Your task to perform on an android device: install app "Google Maps" Image 0: 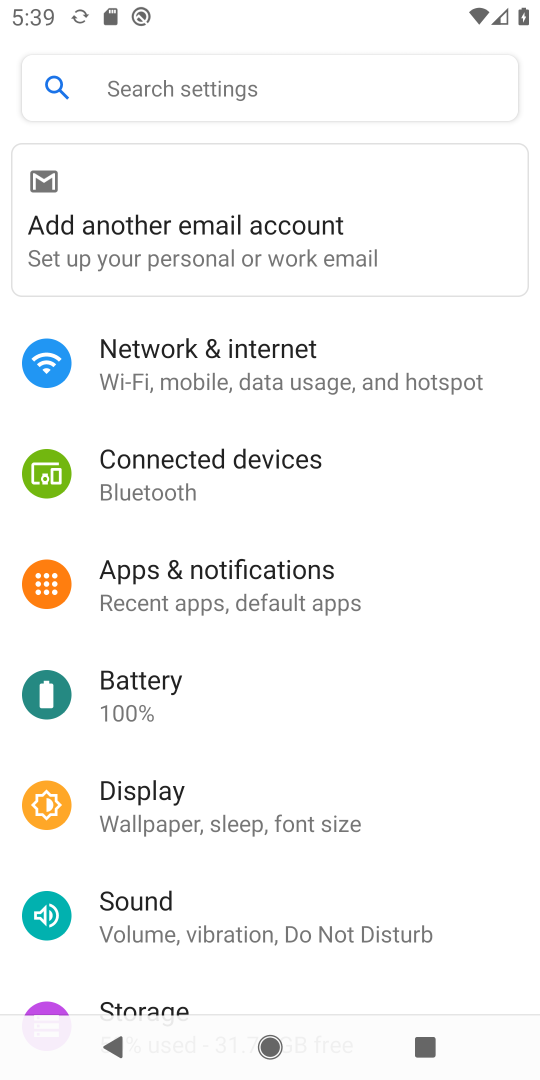
Step 0: press home button
Your task to perform on an android device: install app "Google Maps" Image 1: 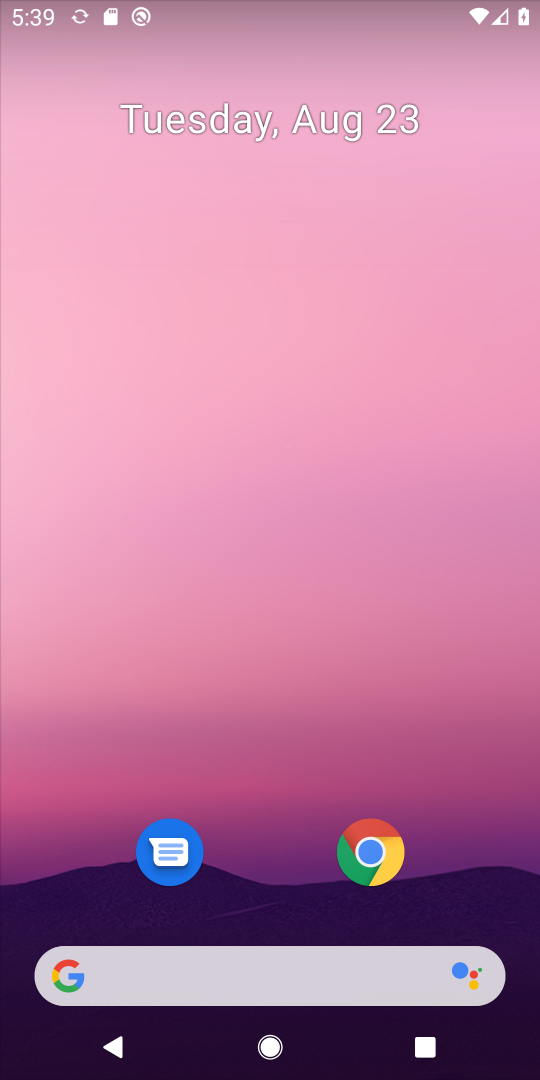
Step 1: drag from (246, 977) to (348, 62)
Your task to perform on an android device: install app "Google Maps" Image 2: 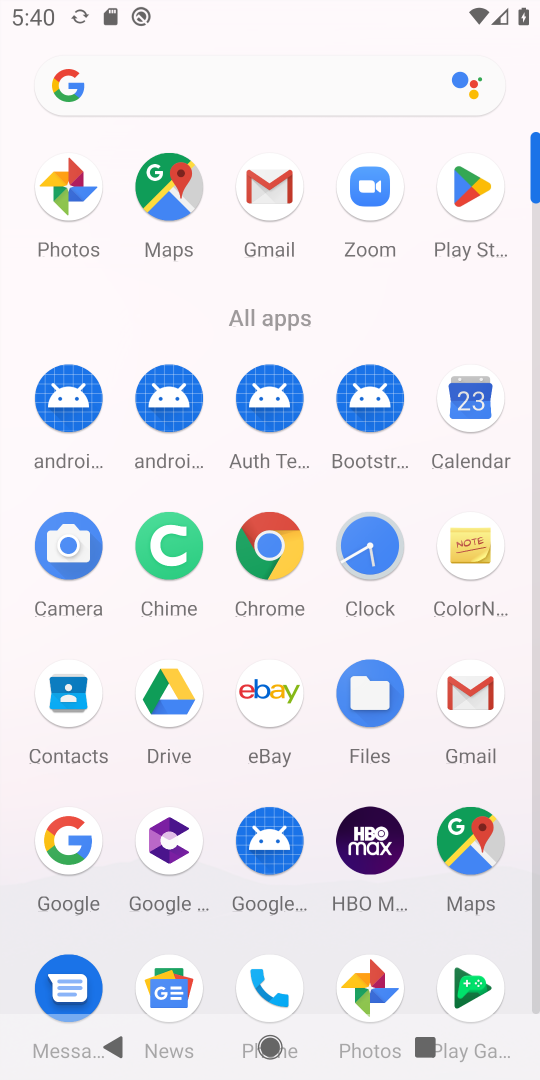
Step 2: click (473, 195)
Your task to perform on an android device: install app "Google Maps" Image 3: 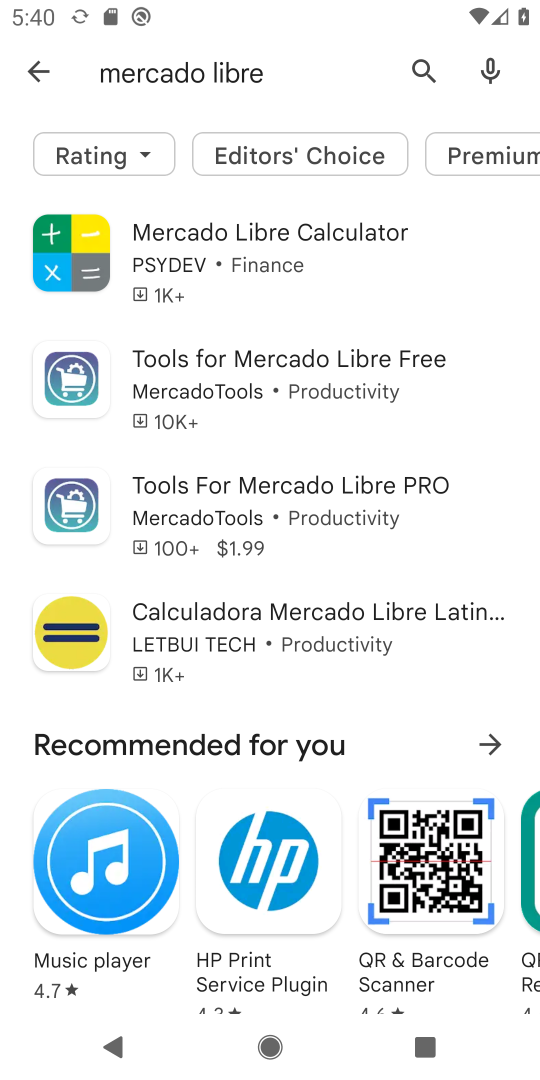
Step 3: press back button
Your task to perform on an android device: install app "Google Maps" Image 4: 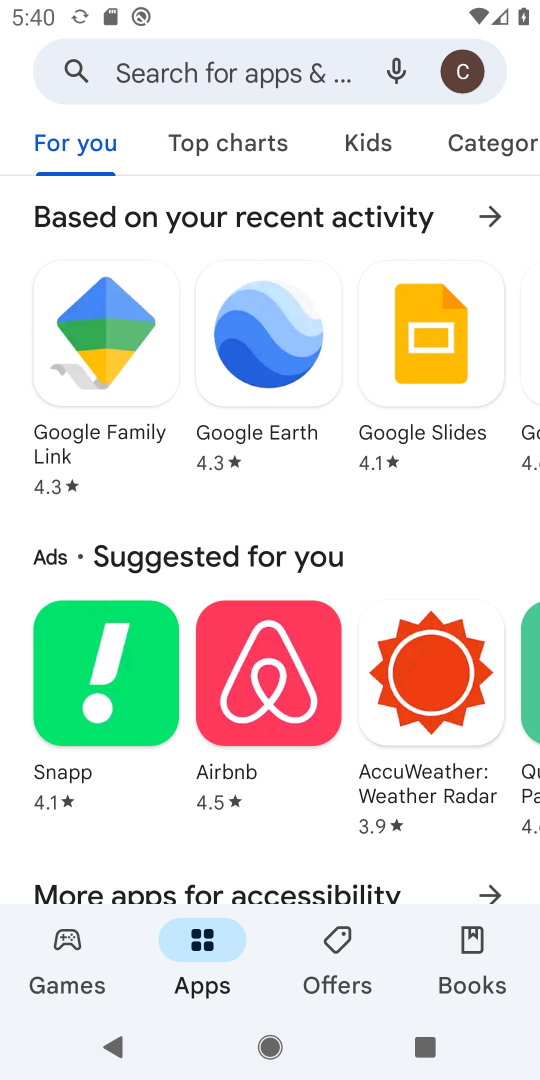
Step 4: click (287, 70)
Your task to perform on an android device: install app "Google Maps" Image 5: 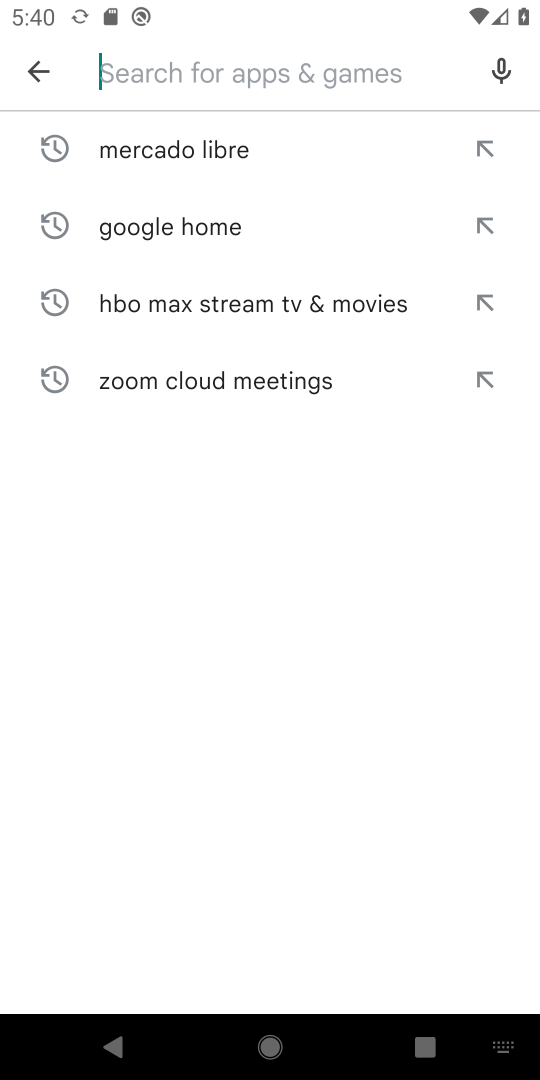
Step 5: type "Google Maps"
Your task to perform on an android device: install app "Google Maps" Image 6: 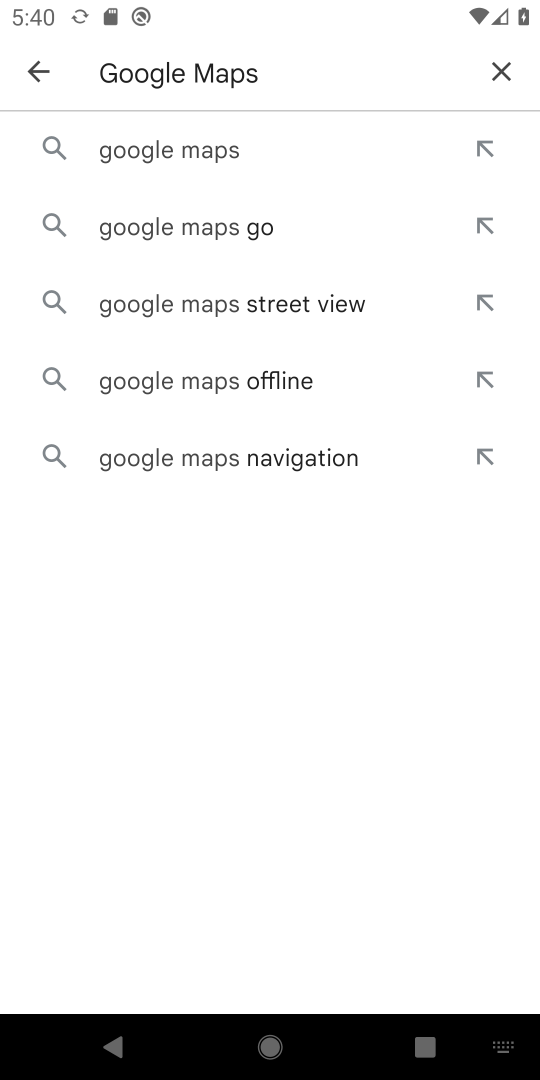
Step 6: click (222, 150)
Your task to perform on an android device: install app "Google Maps" Image 7: 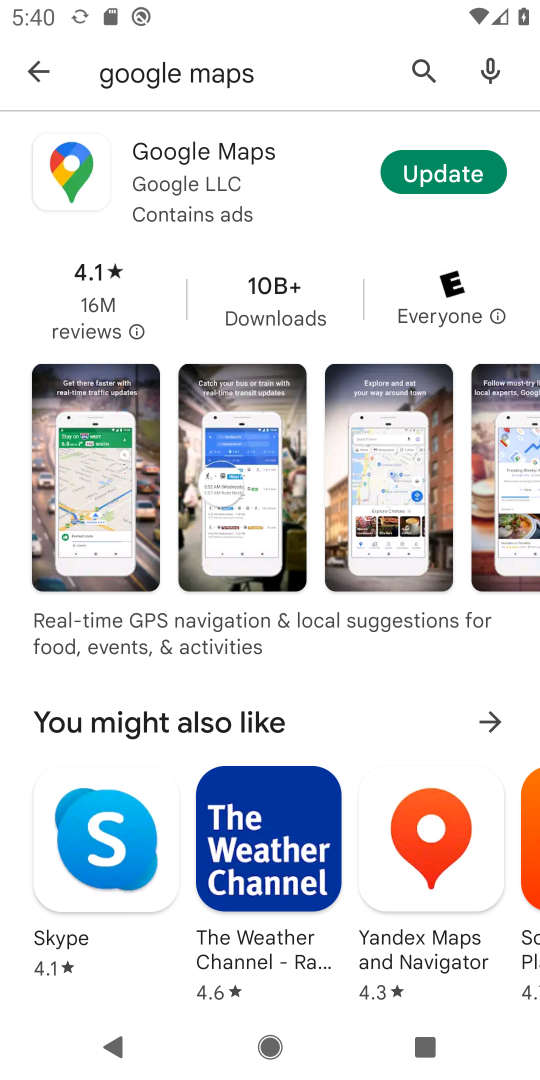
Step 7: click (437, 180)
Your task to perform on an android device: install app "Google Maps" Image 8: 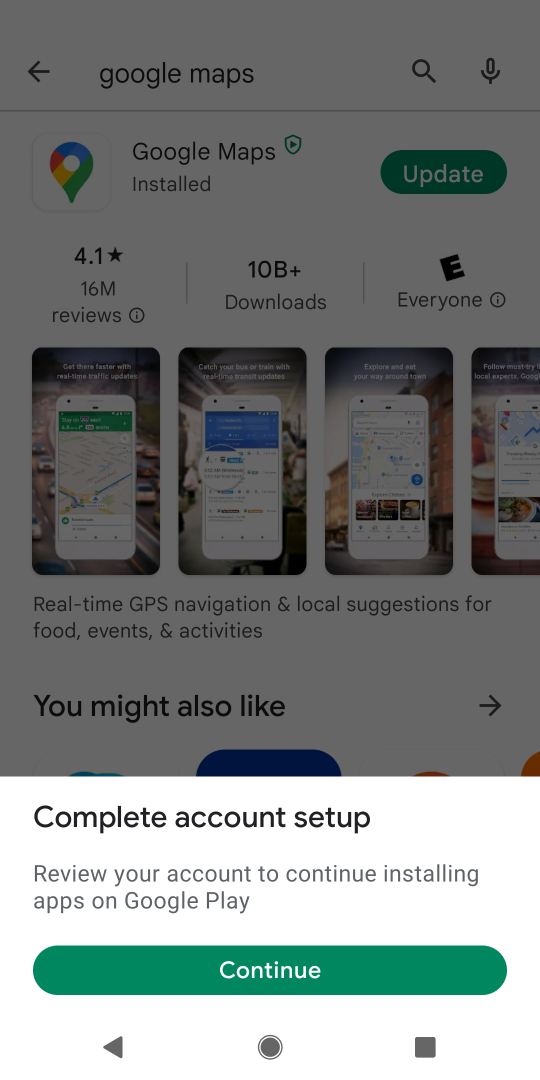
Step 8: click (266, 965)
Your task to perform on an android device: install app "Google Maps" Image 9: 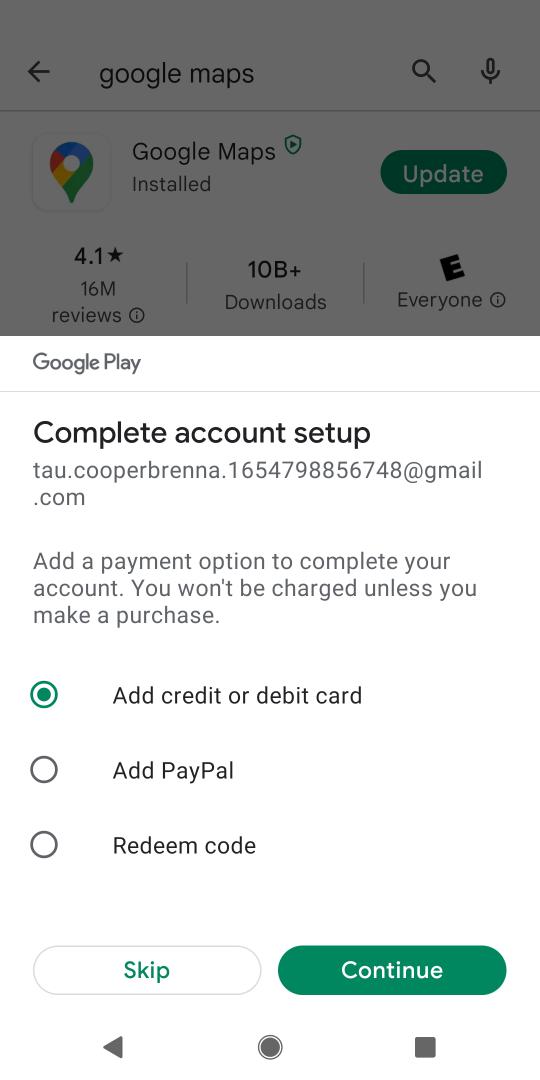
Step 9: click (154, 973)
Your task to perform on an android device: install app "Google Maps" Image 10: 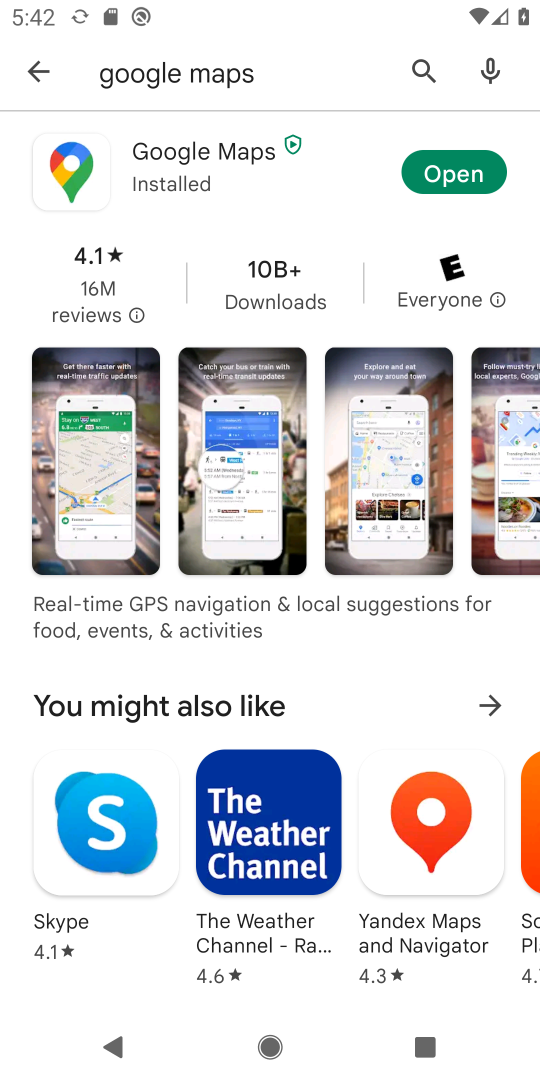
Step 10: task complete